Your task to perform on an android device: turn on showing notifications on the lock screen Image 0: 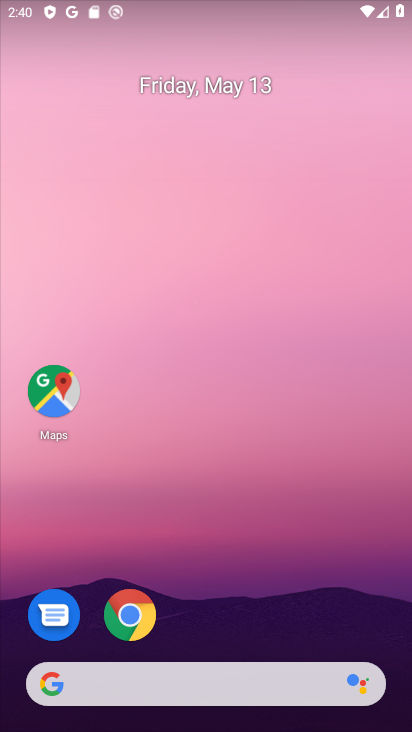
Step 0: drag from (285, 679) to (377, 308)
Your task to perform on an android device: turn on showing notifications on the lock screen Image 1: 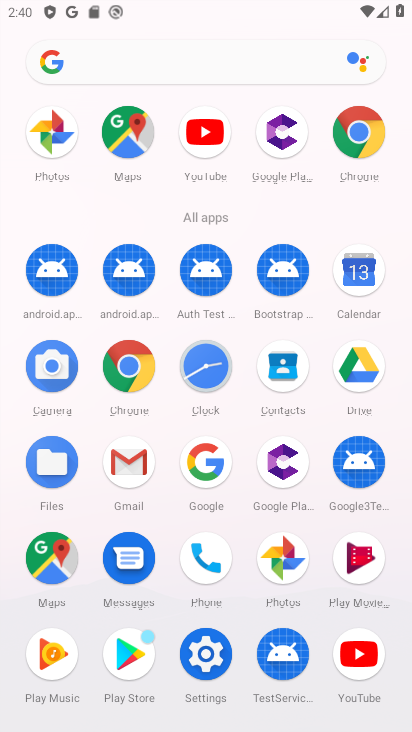
Step 1: click (211, 643)
Your task to perform on an android device: turn on showing notifications on the lock screen Image 2: 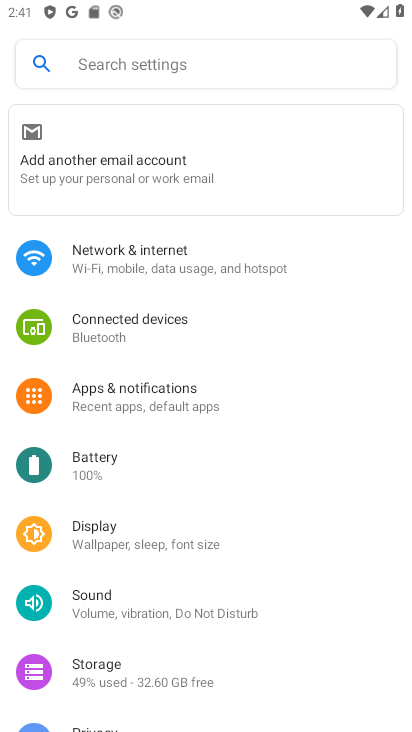
Step 2: click (210, 404)
Your task to perform on an android device: turn on showing notifications on the lock screen Image 3: 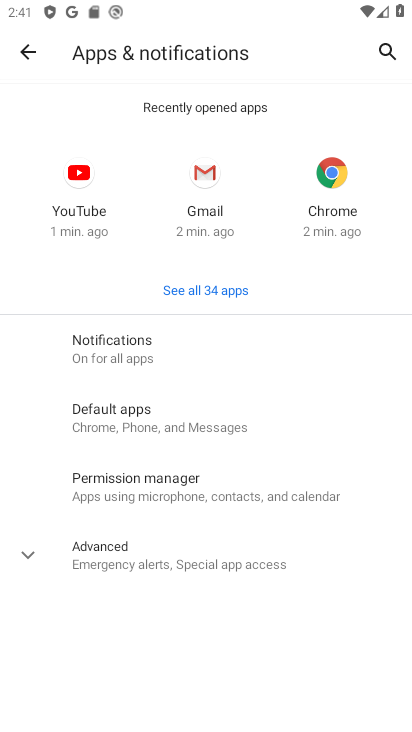
Step 3: click (132, 347)
Your task to perform on an android device: turn on showing notifications on the lock screen Image 4: 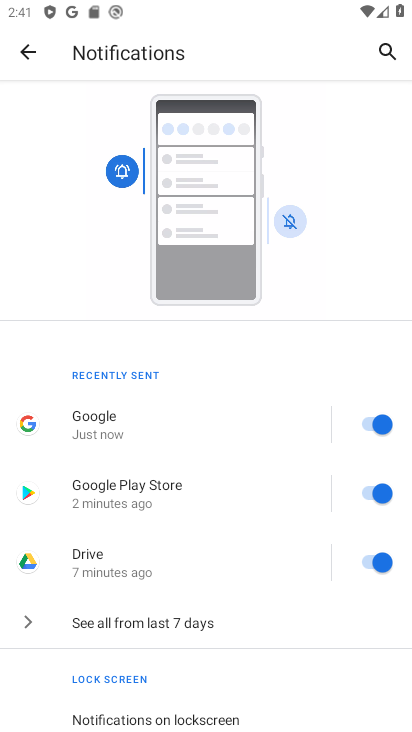
Step 4: drag from (241, 562) to (348, 194)
Your task to perform on an android device: turn on showing notifications on the lock screen Image 5: 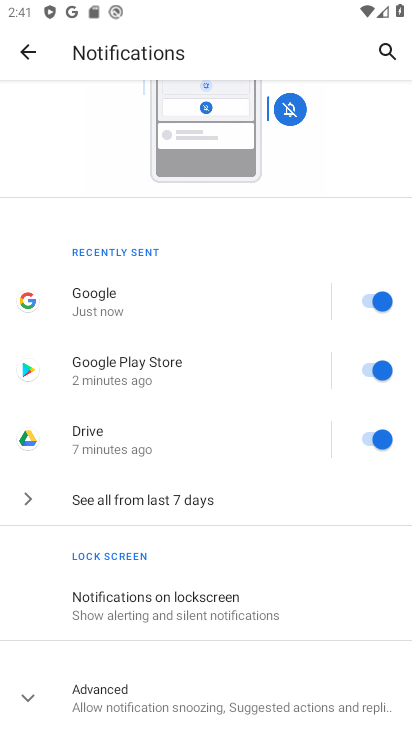
Step 5: click (155, 583)
Your task to perform on an android device: turn on showing notifications on the lock screen Image 6: 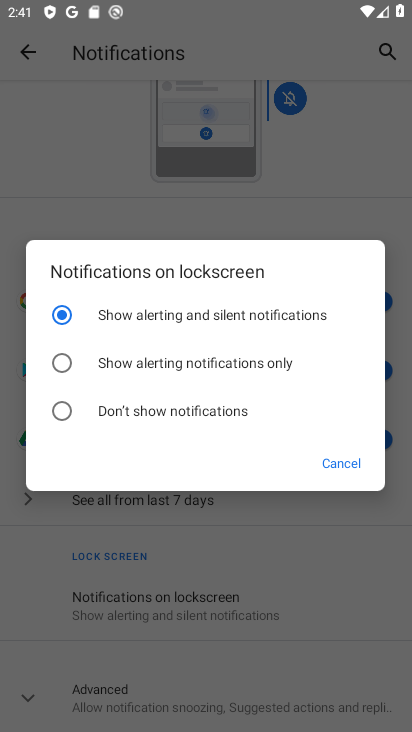
Step 6: task complete